Your task to perform on an android device: change alarm snooze length Image 0: 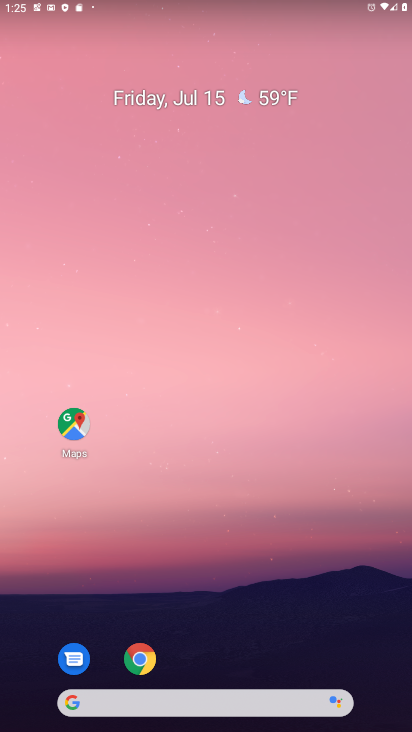
Step 0: drag from (267, 559) to (267, 150)
Your task to perform on an android device: change alarm snooze length Image 1: 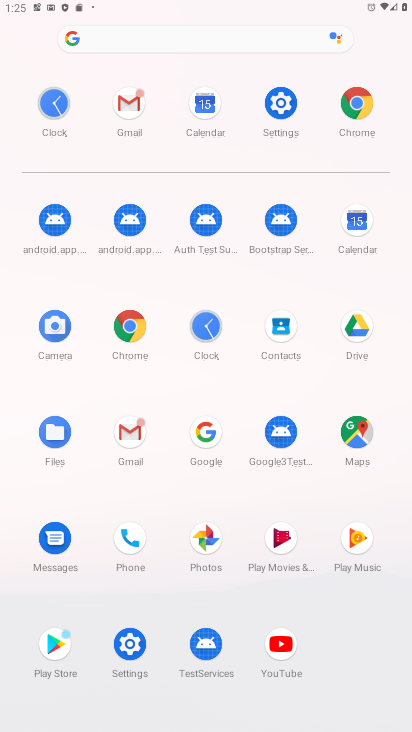
Step 1: click (201, 319)
Your task to perform on an android device: change alarm snooze length Image 2: 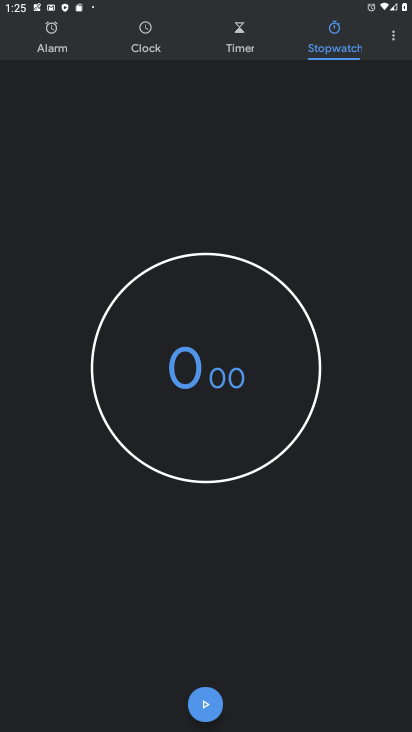
Step 2: click (391, 40)
Your task to perform on an android device: change alarm snooze length Image 3: 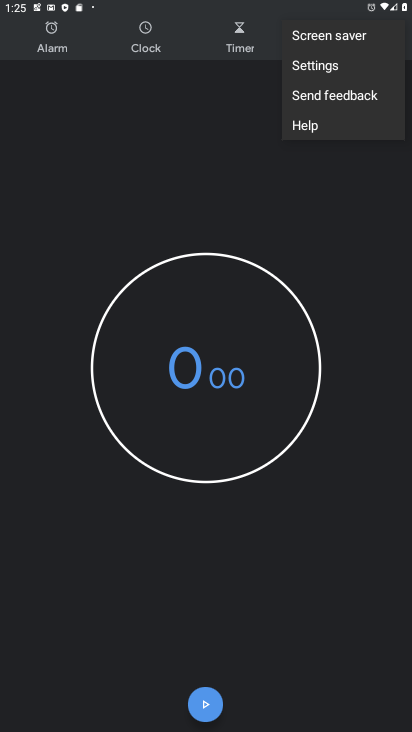
Step 3: click (334, 61)
Your task to perform on an android device: change alarm snooze length Image 4: 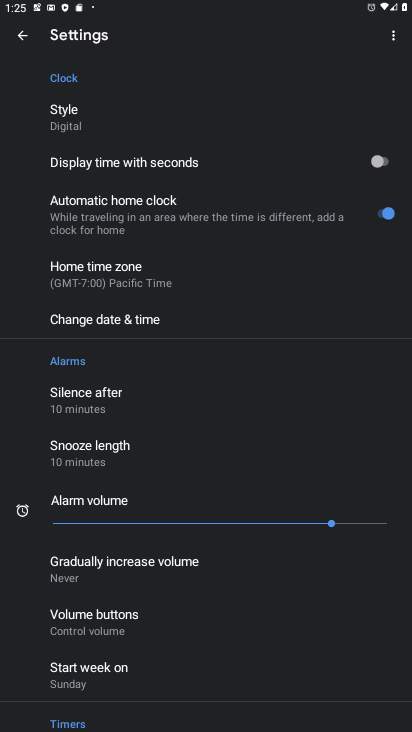
Step 4: click (80, 448)
Your task to perform on an android device: change alarm snooze length Image 5: 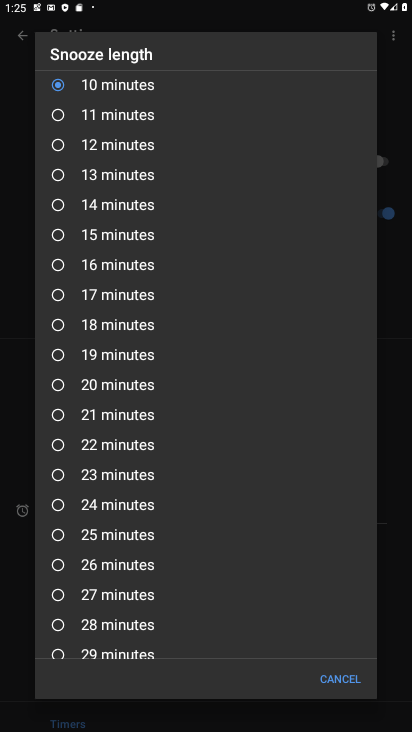
Step 5: click (64, 442)
Your task to perform on an android device: change alarm snooze length Image 6: 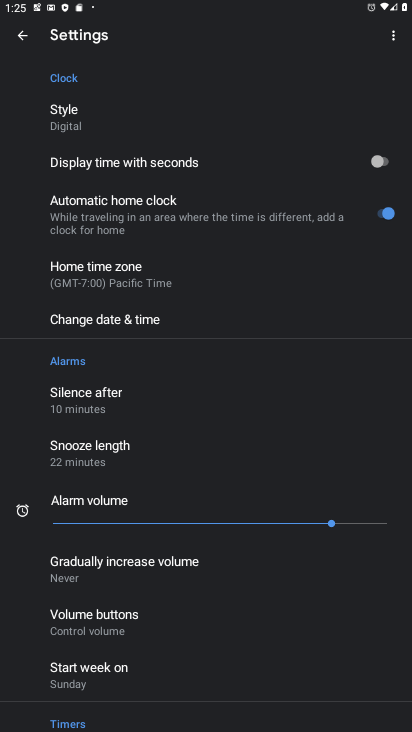
Step 6: task complete